Your task to perform on an android device: Search for the new Nintendo switch on Best Buy Image 0: 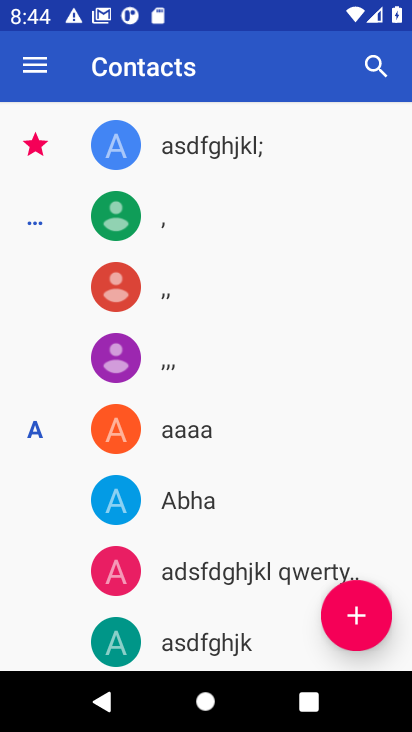
Step 0: press home button
Your task to perform on an android device: Search for the new Nintendo switch on Best Buy Image 1: 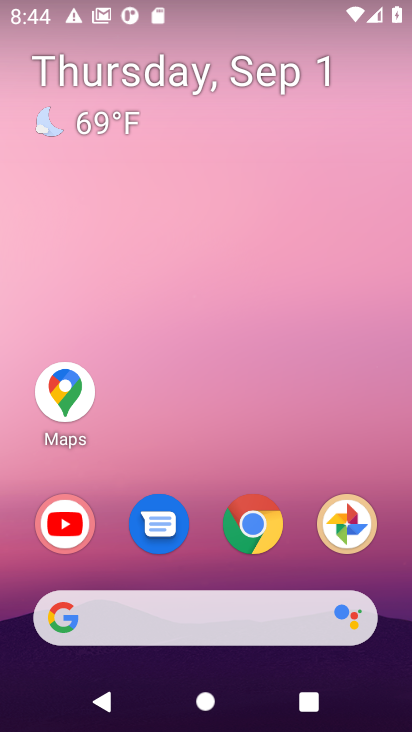
Step 1: click (191, 181)
Your task to perform on an android device: Search for the new Nintendo switch on Best Buy Image 2: 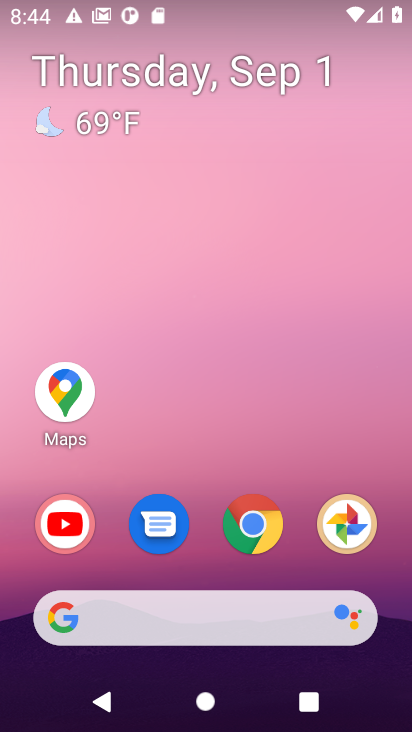
Step 2: drag from (192, 602) to (159, 192)
Your task to perform on an android device: Search for the new Nintendo switch on Best Buy Image 3: 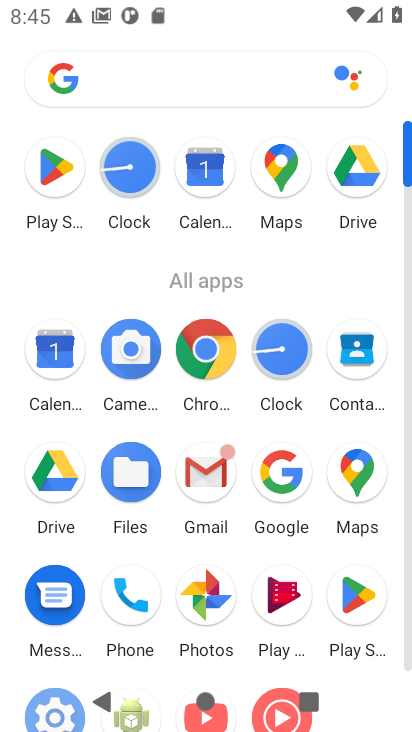
Step 3: click (217, 355)
Your task to perform on an android device: Search for the new Nintendo switch on Best Buy Image 4: 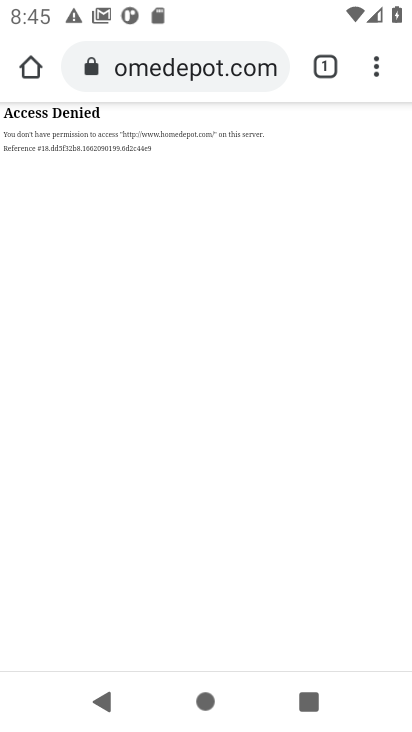
Step 4: click (190, 73)
Your task to perform on an android device: Search for the new Nintendo switch on Best Buy Image 5: 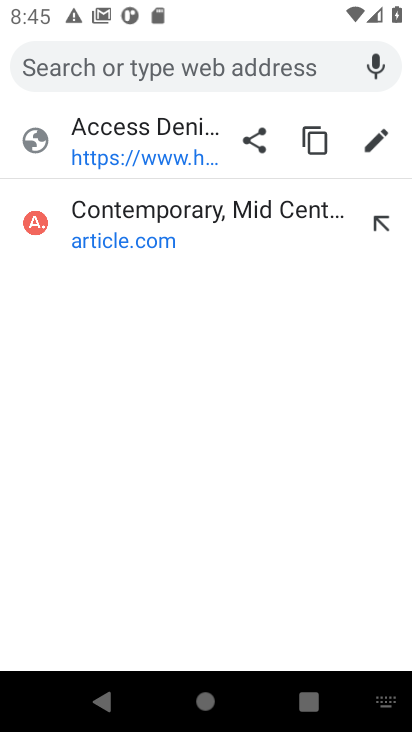
Step 5: type "bestbuy"
Your task to perform on an android device: Search for the new Nintendo switch on Best Buy Image 6: 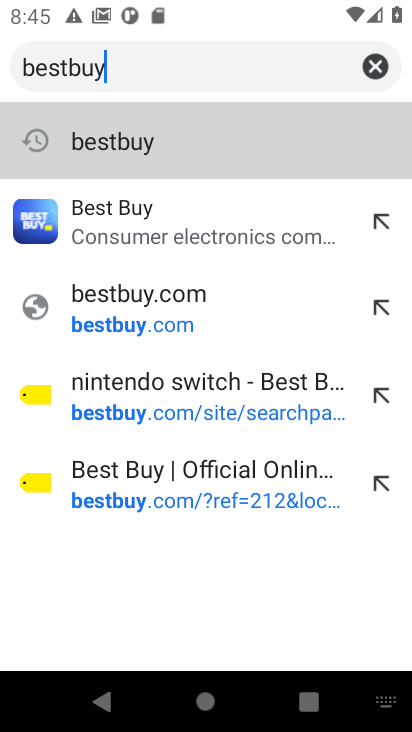
Step 6: click (159, 299)
Your task to perform on an android device: Search for the new Nintendo switch on Best Buy Image 7: 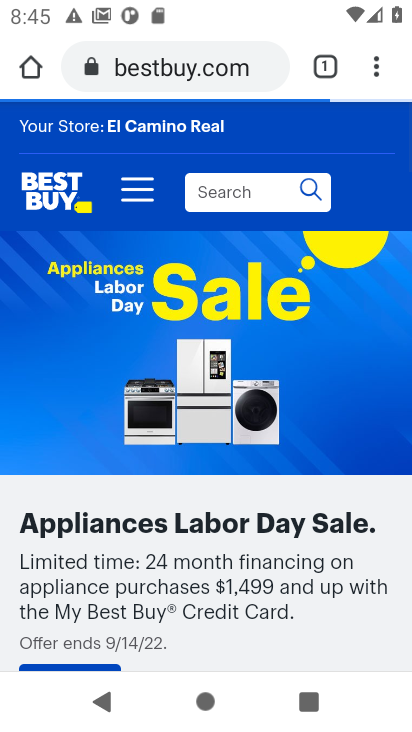
Step 7: click (237, 196)
Your task to perform on an android device: Search for the new Nintendo switch on Best Buy Image 8: 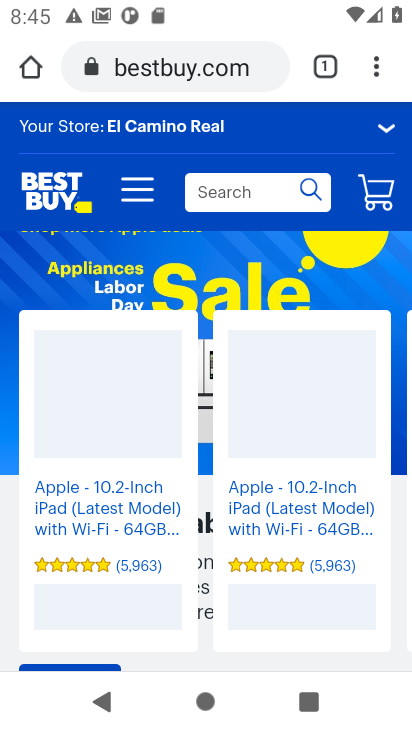
Step 8: type "nintendo switch"
Your task to perform on an android device: Search for the new Nintendo switch on Best Buy Image 9: 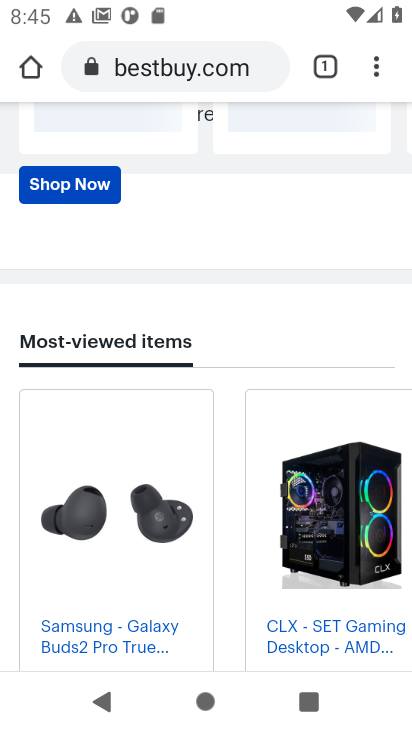
Step 9: drag from (231, 681) to (175, 699)
Your task to perform on an android device: Search for the new Nintendo switch on Best Buy Image 10: 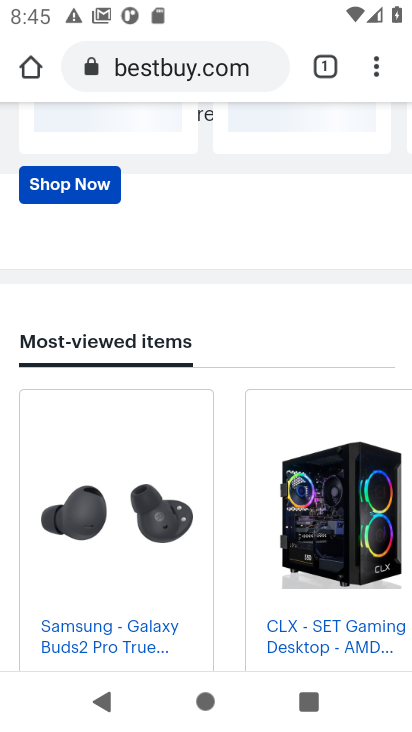
Step 10: drag from (215, 217) to (239, 577)
Your task to perform on an android device: Search for the new Nintendo switch on Best Buy Image 11: 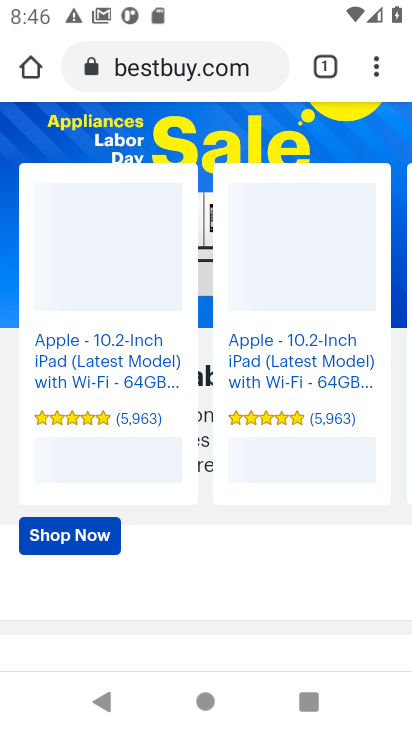
Step 11: drag from (224, 189) to (278, 567)
Your task to perform on an android device: Search for the new Nintendo switch on Best Buy Image 12: 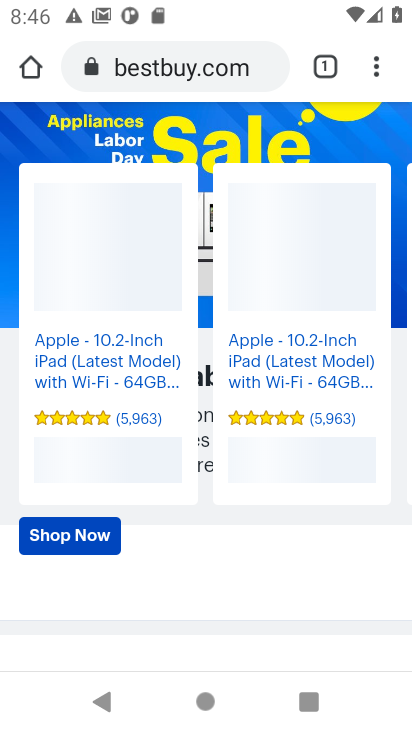
Step 12: drag from (267, 209) to (307, 652)
Your task to perform on an android device: Search for the new Nintendo switch on Best Buy Image 13: 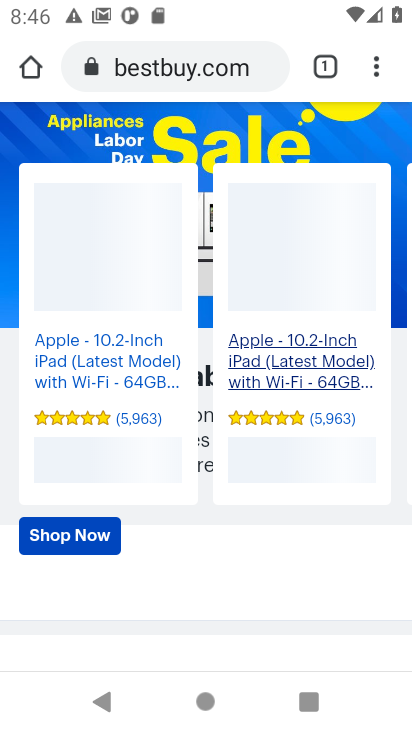
Step 13: drag from (236, 109) to (282, 459)
Your task to perform on an android device: Search for the new Nintendo switch on Best Buy Image 14: 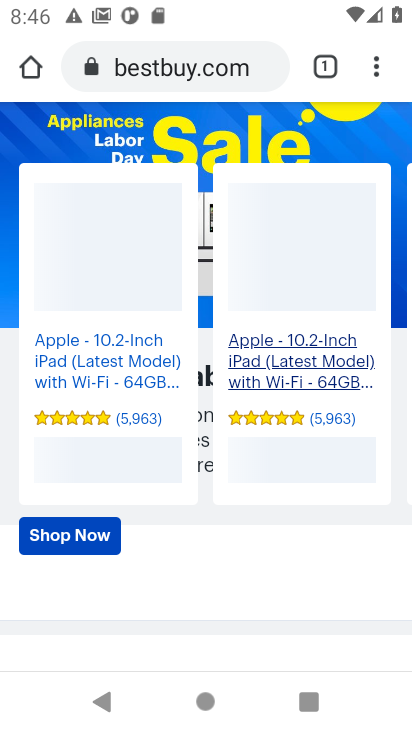
Step 14: drag from (246, 146) to (238, 720)
Your task to perform on an android device: Search for the new Nintendo switch on Best Buy Image 15: 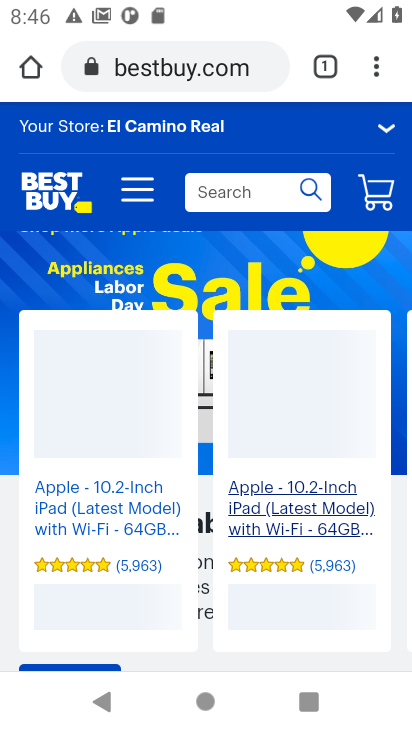
Step 15: click (231, 189)
Your task to perform on an android device: Search for the new Nintendo switch on Best Buy Image 16: 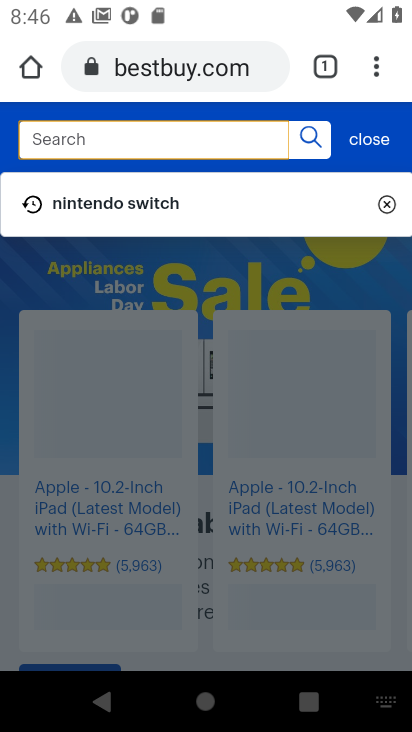
Step 16: click (158, 213)
Your task to perform on an android device: Search for the new Nintendo switch on Best Buy Image 17: 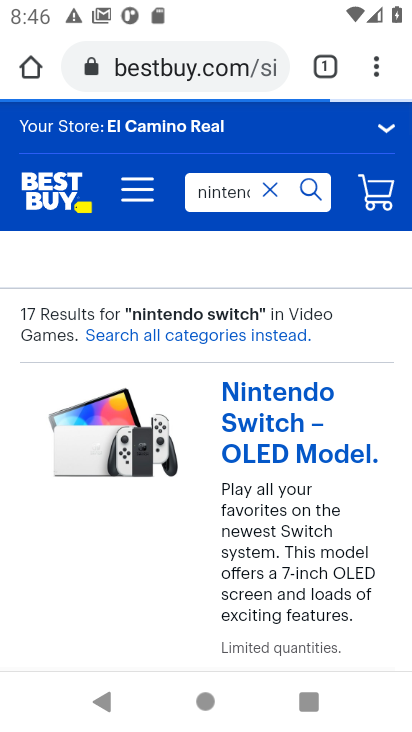
Step 17: task complete